Your task to perform on an android device: Open Google Image 0: 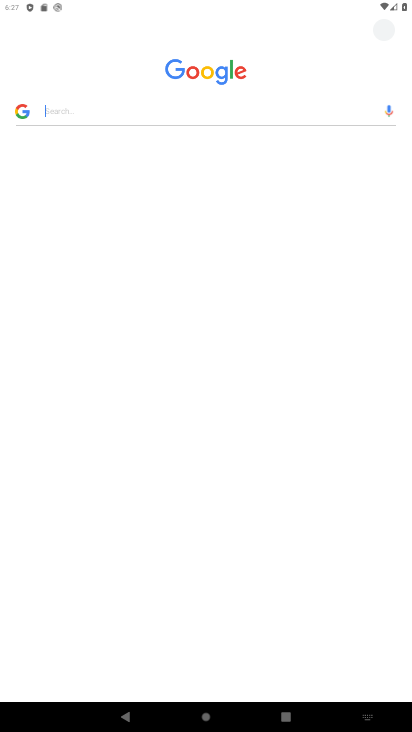
Step 0: press home button
Your task to perform on an android device: Open Google Image 1: 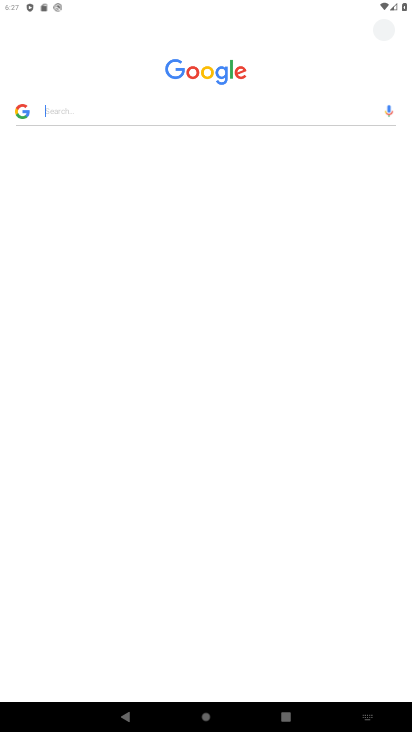
Step 1: click (195, 408)
Your task to perform on an android device: Open Google Image 2: 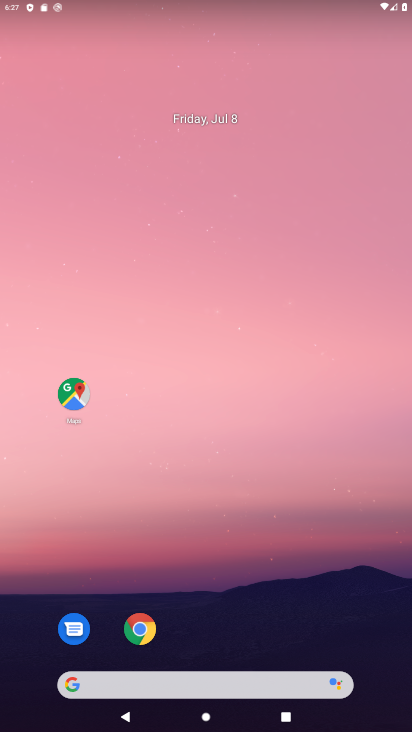
Step 2: drag from (270, 594) to (237, 37)
Your task to perform on an android device: Open Google Image 3: 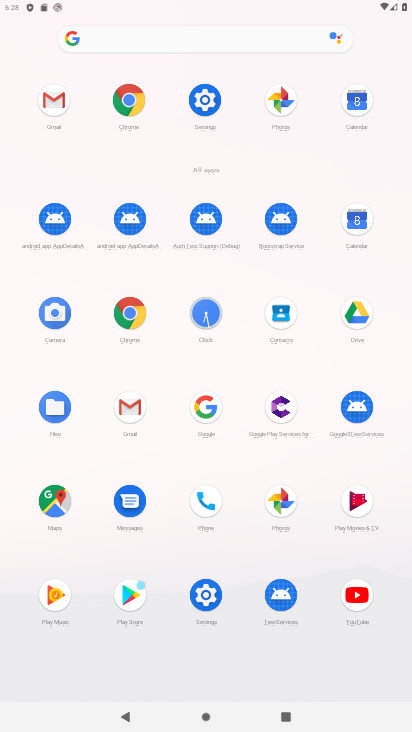
Step 3: click (215, 410)
Your task to perform on an android device: Open Google Image 4: 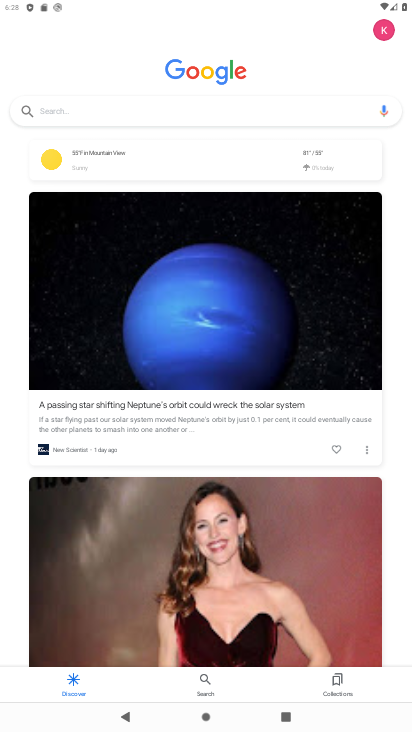
Step 4: task complete